Your task to perform on an android device: turn on airplane mode Image 0: 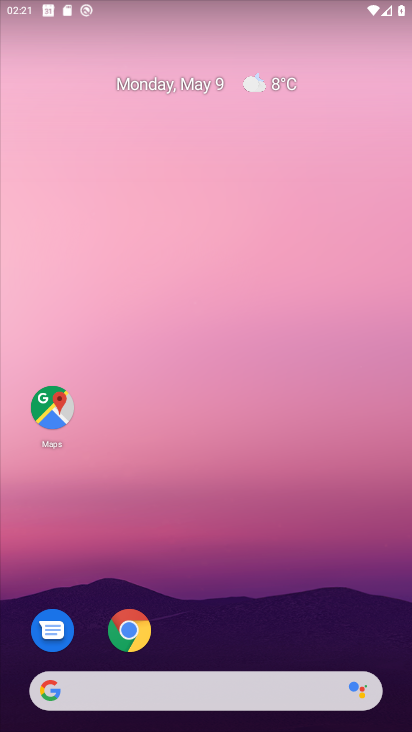
Step 0: click (276, 98)
Your task to perform on an android device: turn on airplane mode Image 1: 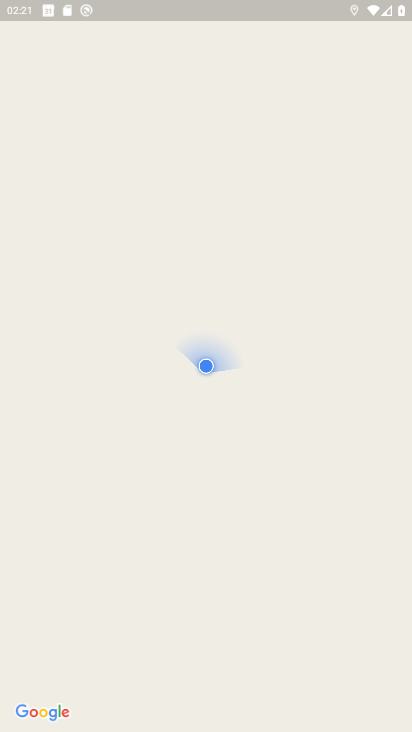
Step 1: press home button
Your task to perform on an android device: turn on airplane mode Image 2: 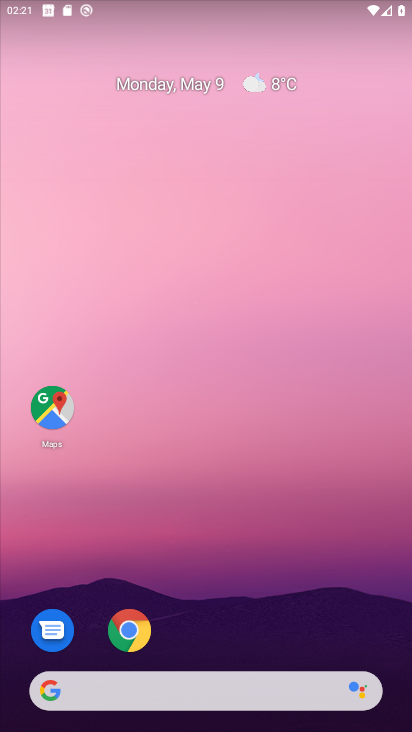
Step 2: drag from (230, 548) to (289, 3)
Your task to perform on an android device: turn on airplane mode Image 3: 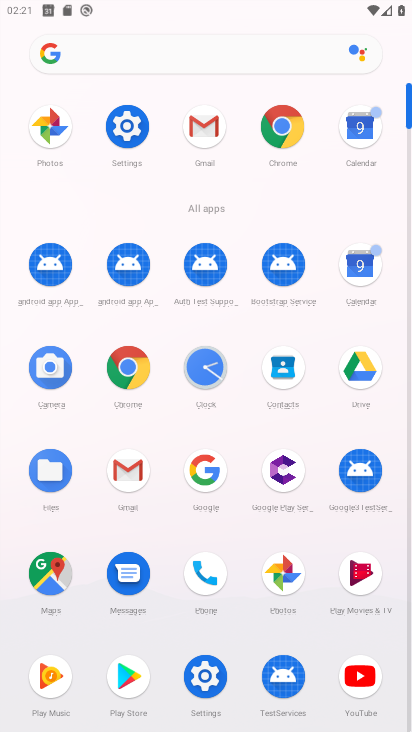
Step 3: click (144, 119)
Your task to perform on an android device: turn on airplane mode Image 4: 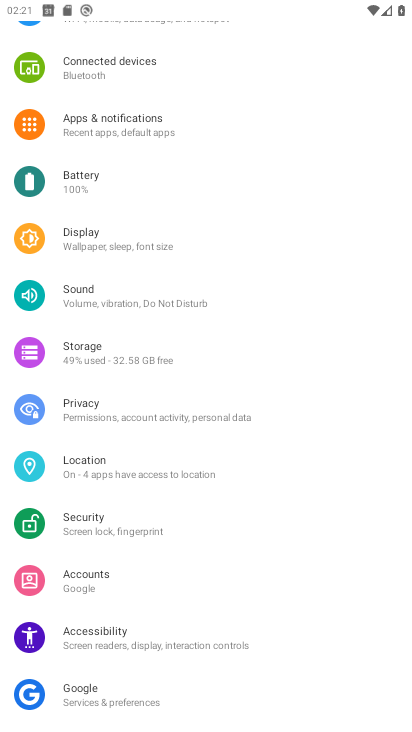
Step 4: drag from (143, 119) to (141, 568)
Your task to perform on an android device: turn on airplane mode Image 5: 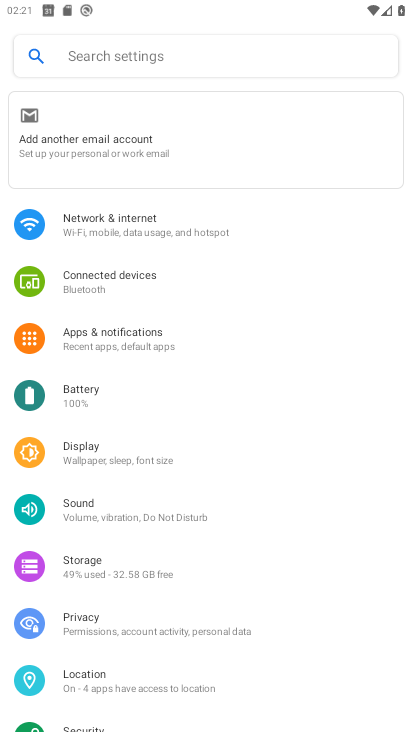
Step 5: click (161, 228)
Your task to perform on an android device: turn on airplane mode Image 6: 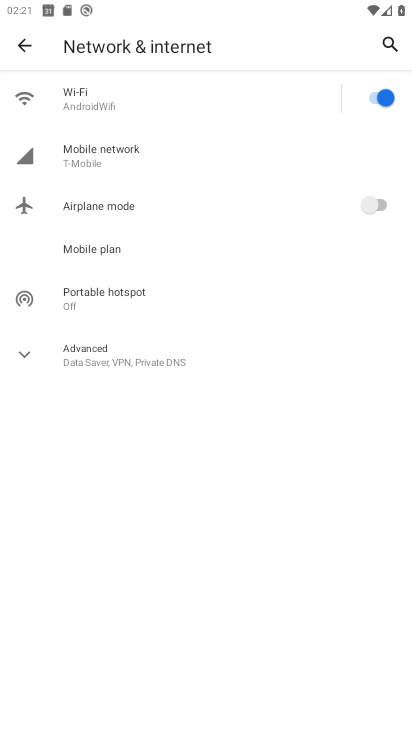
Step 6: click (391, 202)
Your task to perform on an android device: turn on airplane mode Image 7: 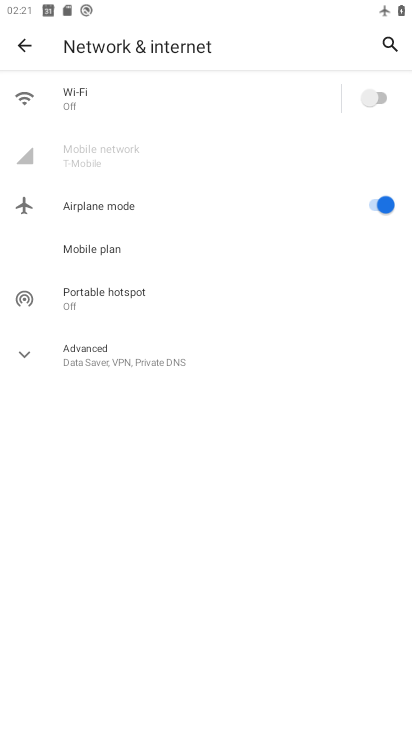
Step 7: task complete